Your task to perform on an android device: uninstall "Google Drive" Image 0: 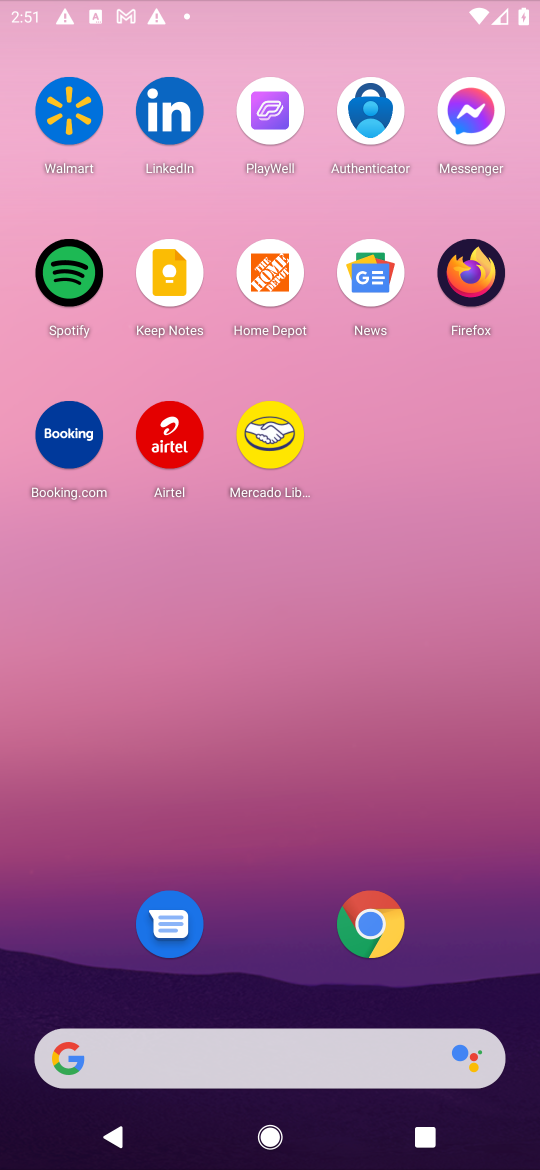
Step 0: press home button
Your task to perform on an android device: uninstall "Google Drive" Image 1: 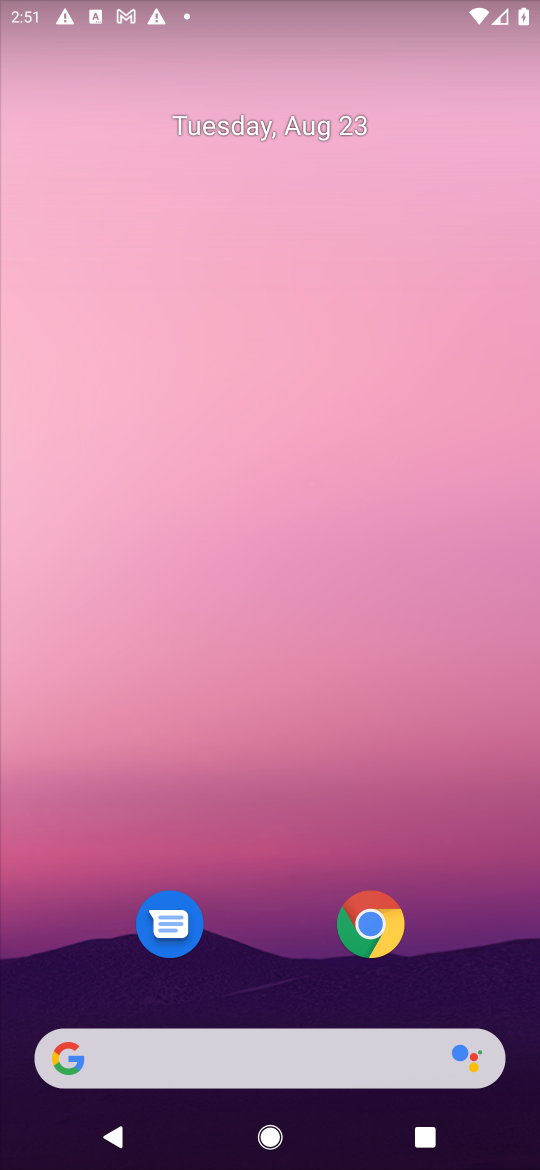
Step 1: drag from (455, 733) to (448, 142)
Your task to perform on an android device: uninstall "Google Drive" Image 2: 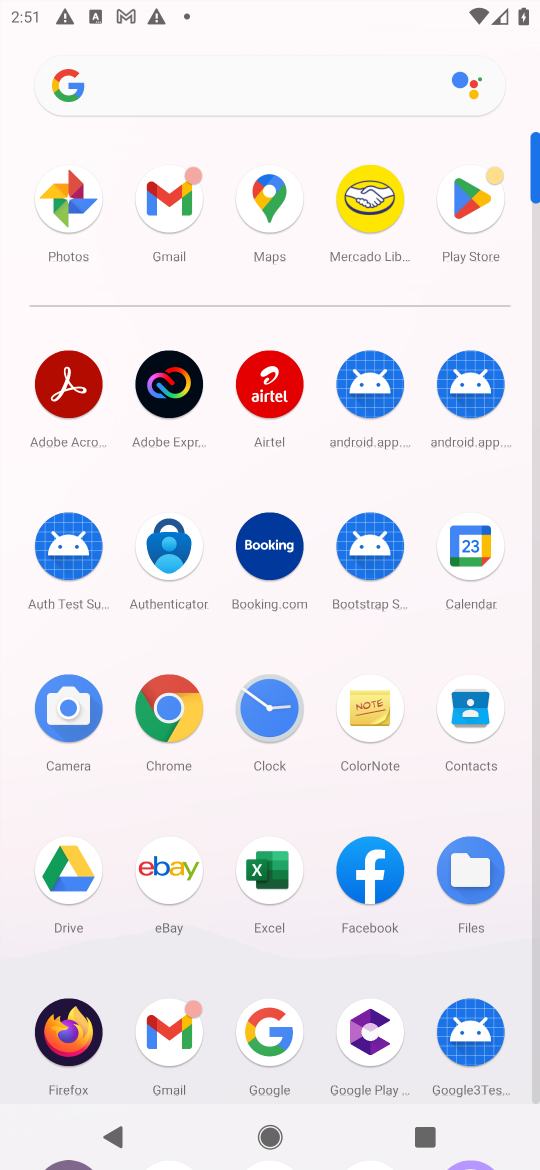
Step 2: click (463, 191)
Your task to perform on an android device: uninstall "Google Drive" Image 3: 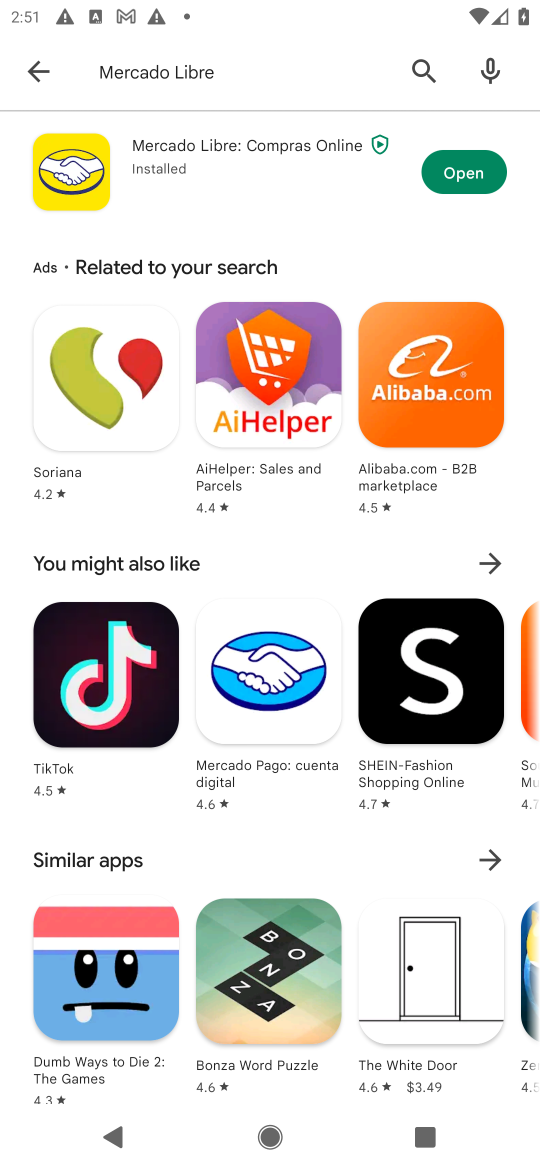
Step 3: press back button
Your task to perform on an android device: uninstall "Google Drive" Image 4: 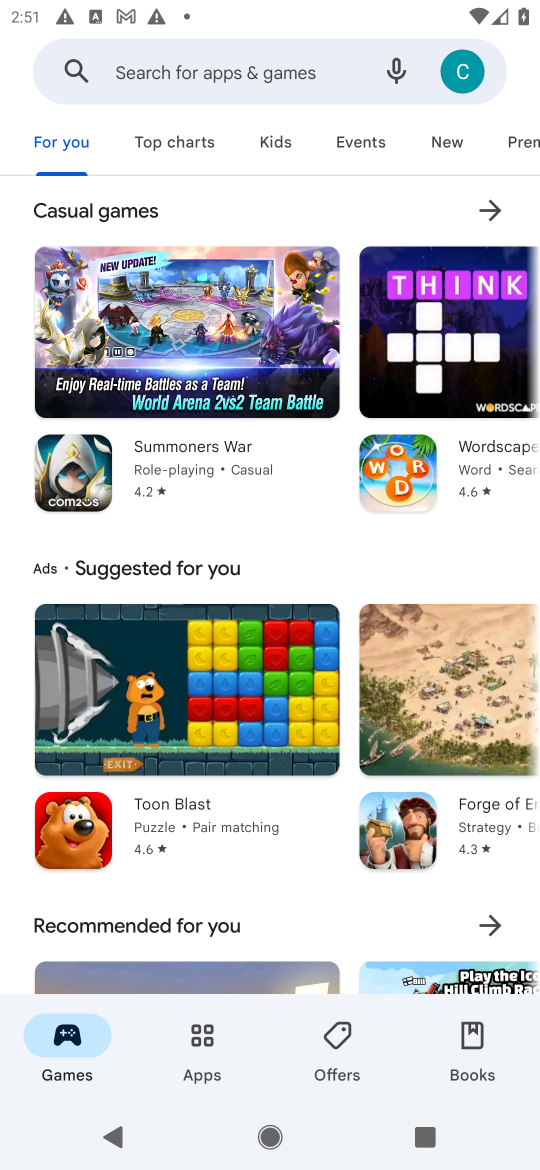
Step 4: click (237, 65)
Your task to perform on an android device: uninstall "Google Drive" Image 5: 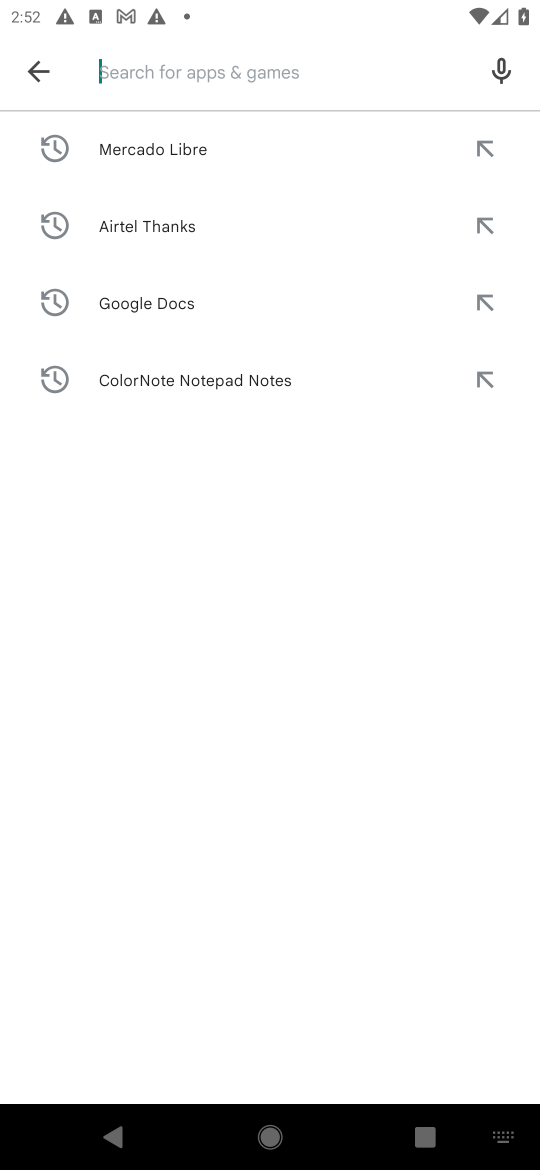
Step 5: type "Google Drive"
Your task to perform on an android device: uninstall "Google Drive" Image 6: 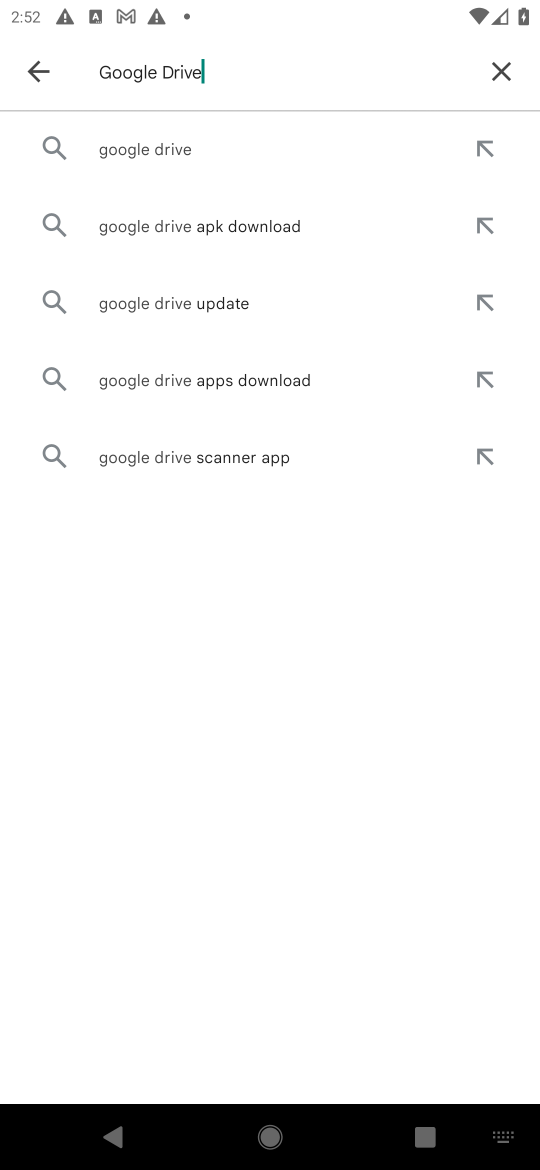
Step 6: press enter
Your task to perform on an android device: uninstall "Google Drive" Image 7: 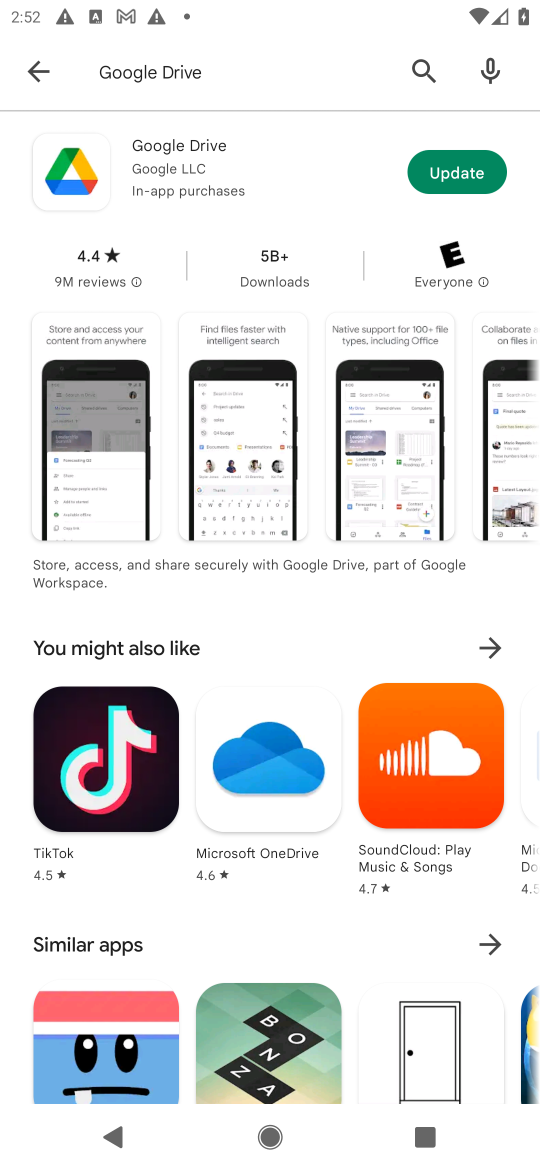
Step 7: task complete